Your task to perform on an android device: turn on wifi Image 0: 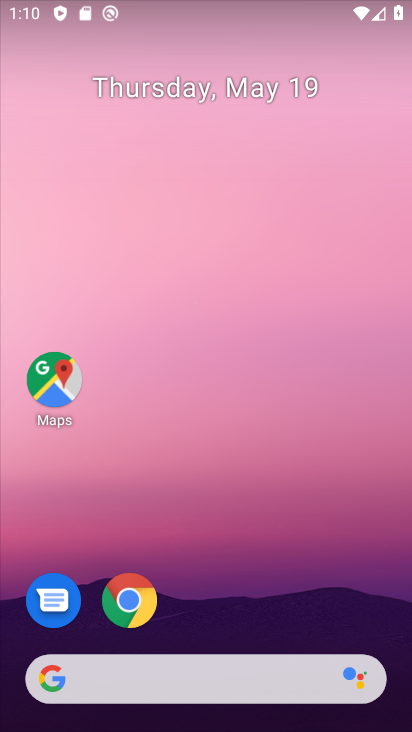
Step 0: drag from (284, 7) to (299, 486)
Your task to perform on an android device: turn on wifi Image 1: 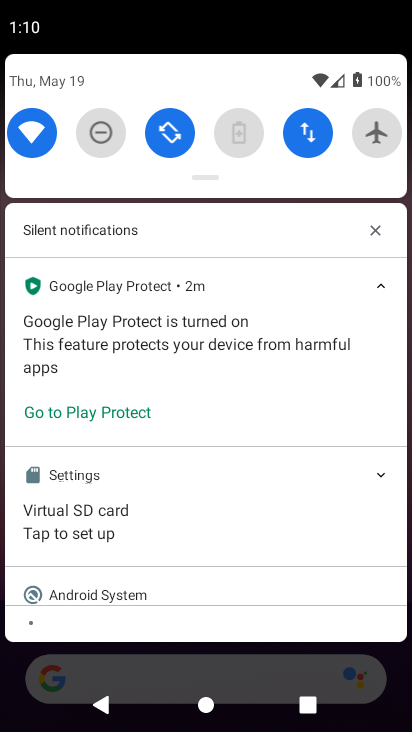
Step 1: task complete